Your task to perform on an android device: Open Youtube and go to the subscriptions tab Image 0: 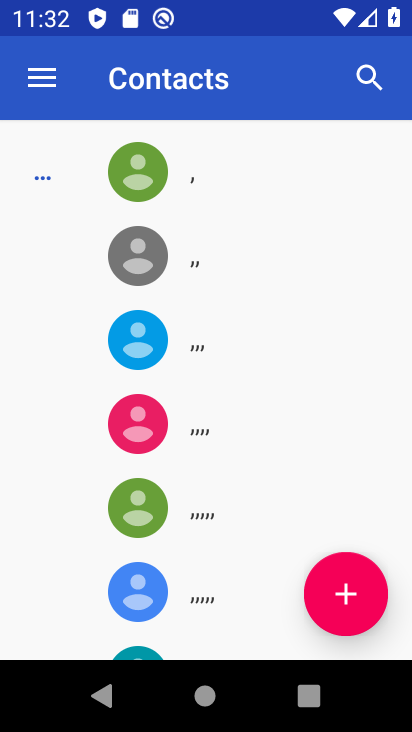
Step 0: press home button
Your task to perform on an android device: Open Youtube and go to the subscriptions tab Image 1: 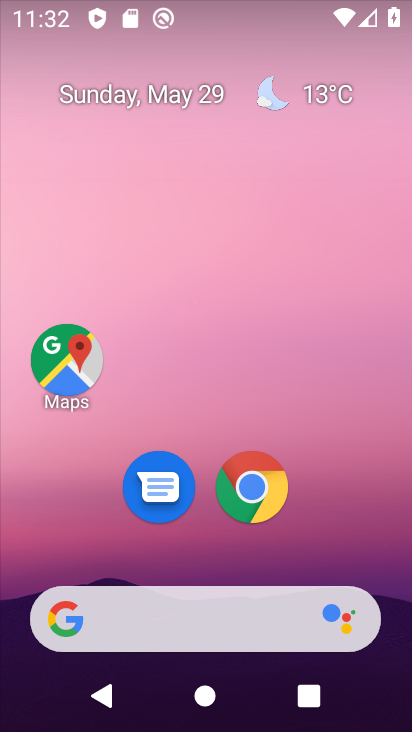
Step 1: drag from (360, 515) to (314, 131)
Your task to perform on an android device: Open Youtube and go to the subscriptions tab Image 2: 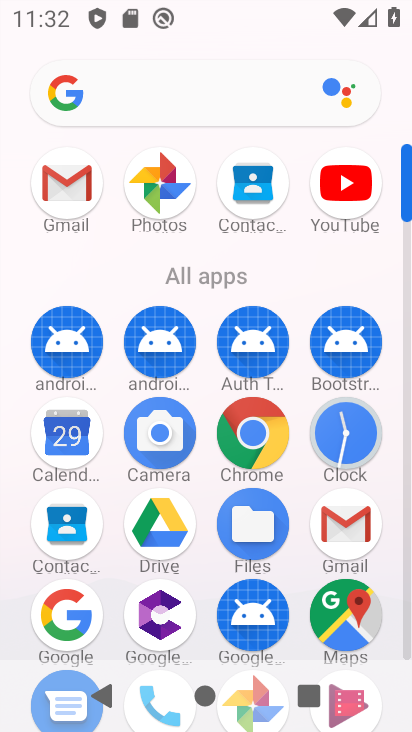
Step 2: click (329, 189)
Your task to perform on an android device: Open Youtube and go to the subscriptions tab Image 3: 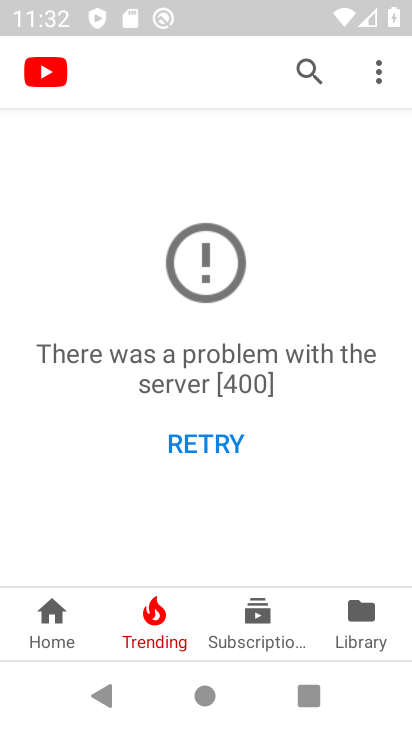
Step 3: click (290, 630)
Your task to perform on an android device: Open Youtube and go to the subscriptions tab Image 4: 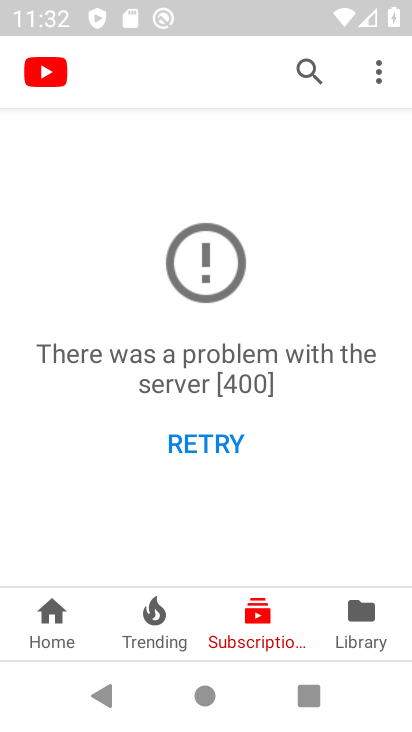
Step 4: task complete